Your task to perform on an android device: turn on the 24-hour format for clock Image 0: 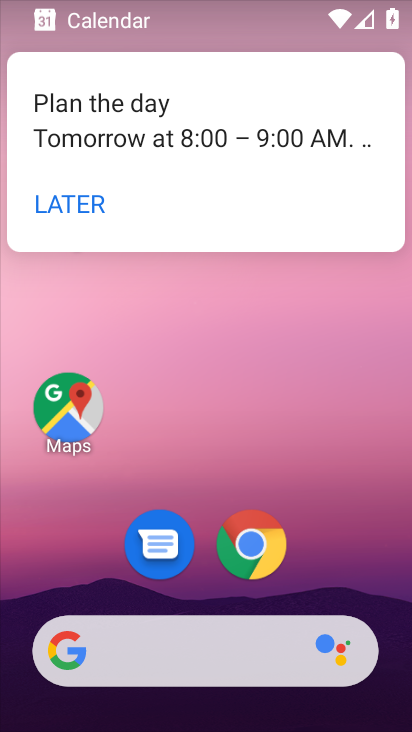
Step 0: click (86, 208)
Your task to perform on an android device: turn on the 24-hour format for clock Image 1: 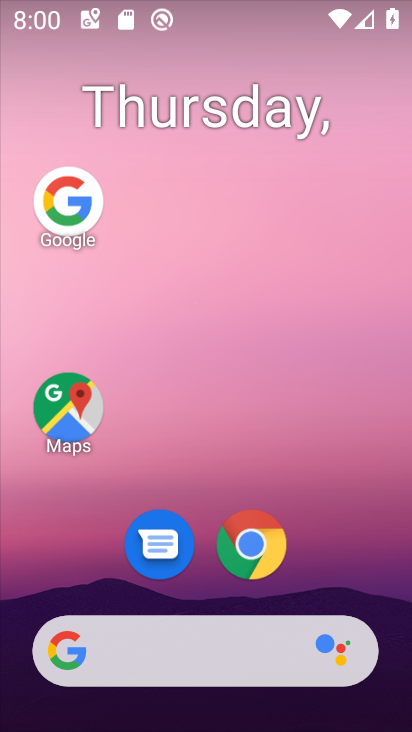
Step 1: drag from (262, 693) to (249, 140)
Your task to perform on an android device: turn on the 24-hour format for clock Image 2: 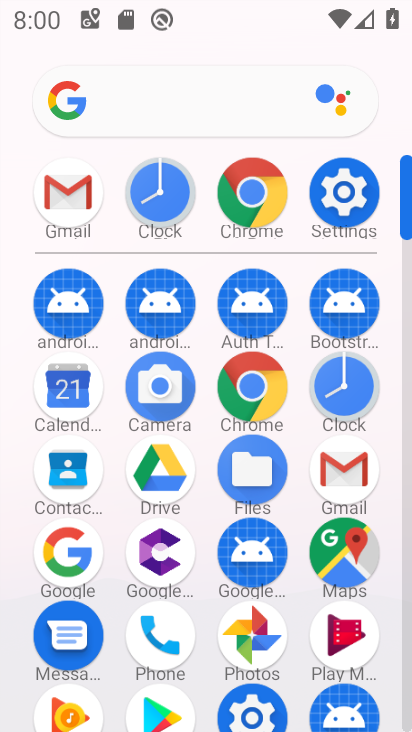
Step 2: click (339, 379)
Your task to perform on an android device: turn on the 24-hour format for clock Image 3: 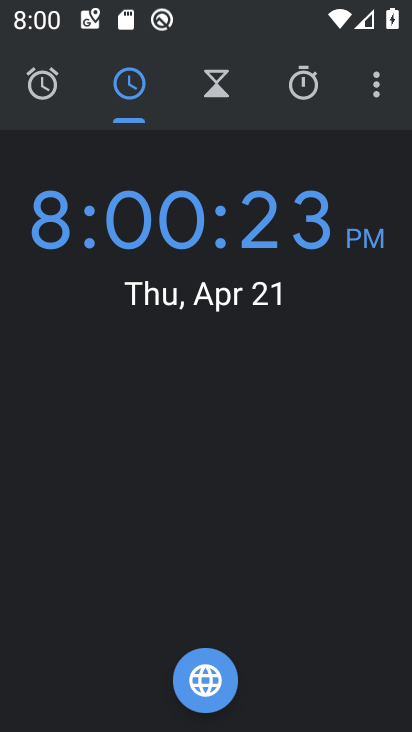
Step 3: click (365, 96)
Your task to perform on an android device: turn on the 24-hour format for clock Image 4: 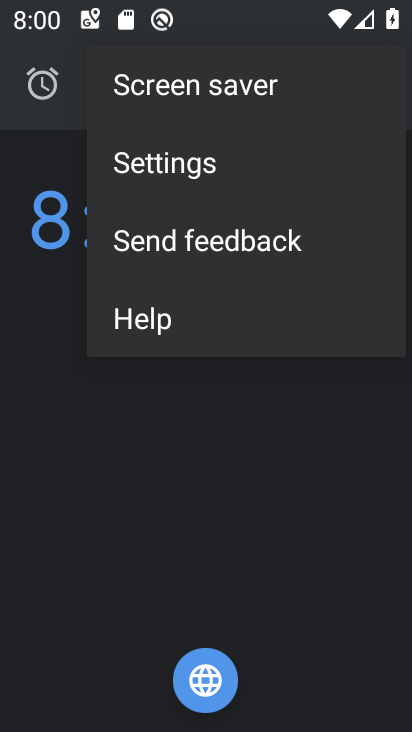
Step 4: click (220, 157)
Your task to perform on an android device: turn on the 24-hour format for clock Image 5: 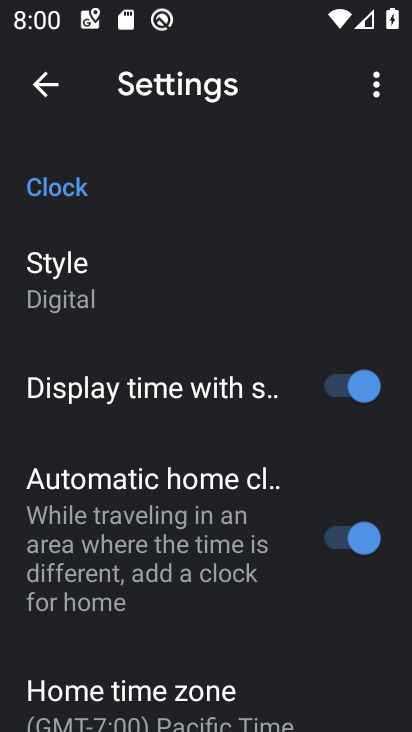
Step 5: drag from (160, 598) to (195, 105)
Your task to perform on an android device: turn on the 24-hour format for clock Image 6: 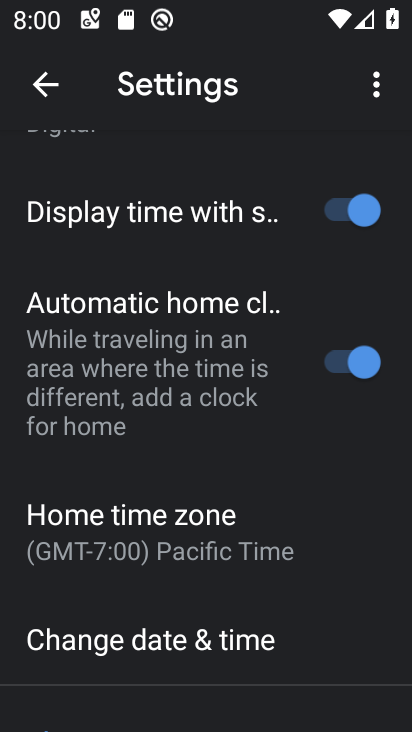
Step 6: click (130, 633)
Your task to perform on an android device: turn on the 24-hour format for clock Image 7: 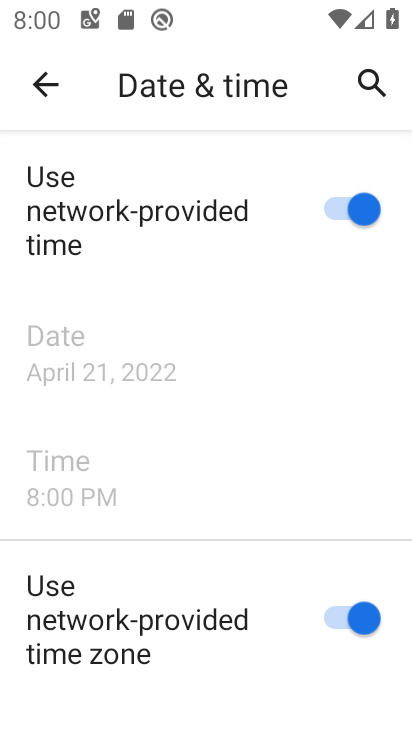
Step 7: drag from (291, 640) to (315, 194)
Your task to perform on an android device: turn on the 24-hour format for clock Image 8: 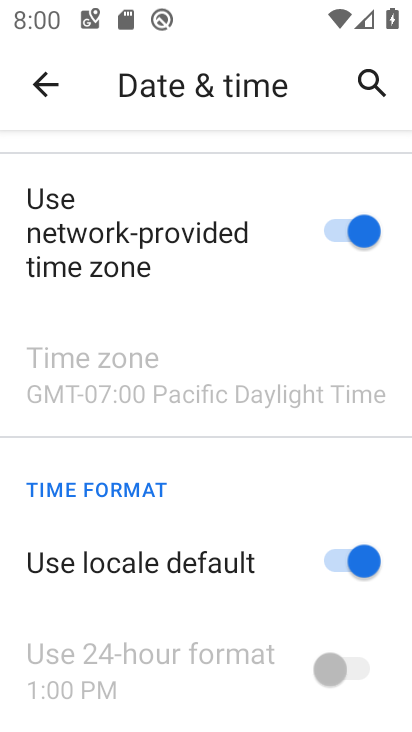
Step 8: drag from (232, 527) to (248, 423)
Your task to perform on an android device: turn on the 24-hour format for clock Image 9: 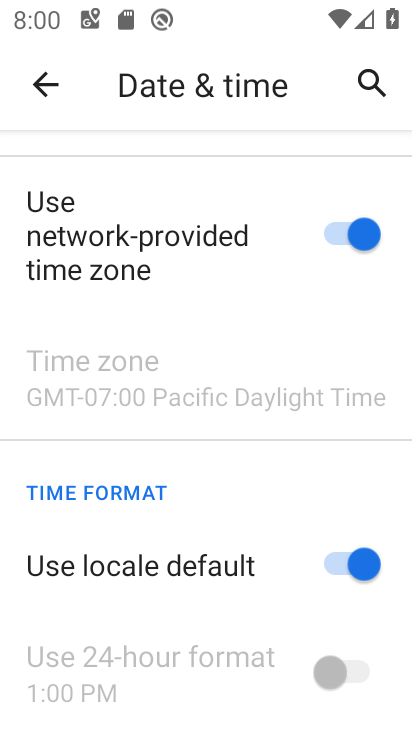
Step 9: click (361, 571)
Your task to perform on an android device: turn on the 24-hour format for clock Image 10: 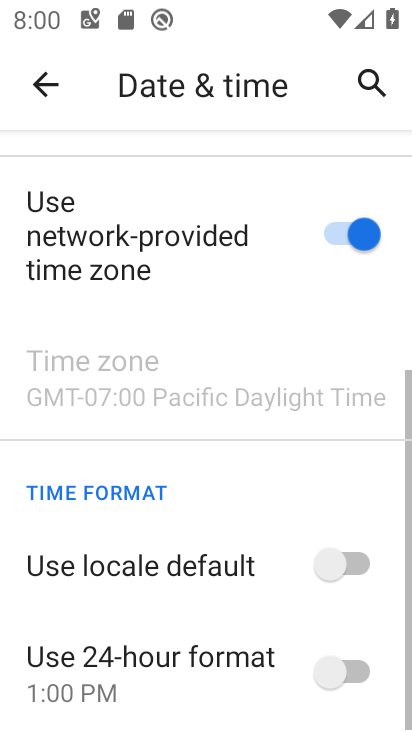
Step 10: click (349, 682)
Your task to perform on an android device: turn on the 24-hour format for clock Image 11: 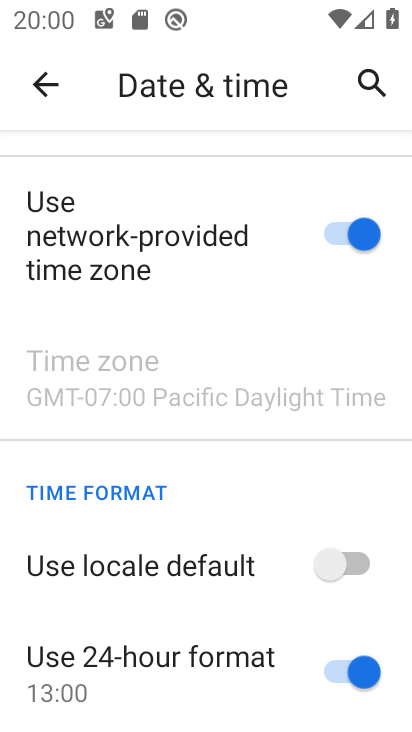
Step 11: task complete